Your task to perform on an android device: Search for macbook pro 15 inch on bestbuy, select the first entry, and add it to the cart. Image 0: 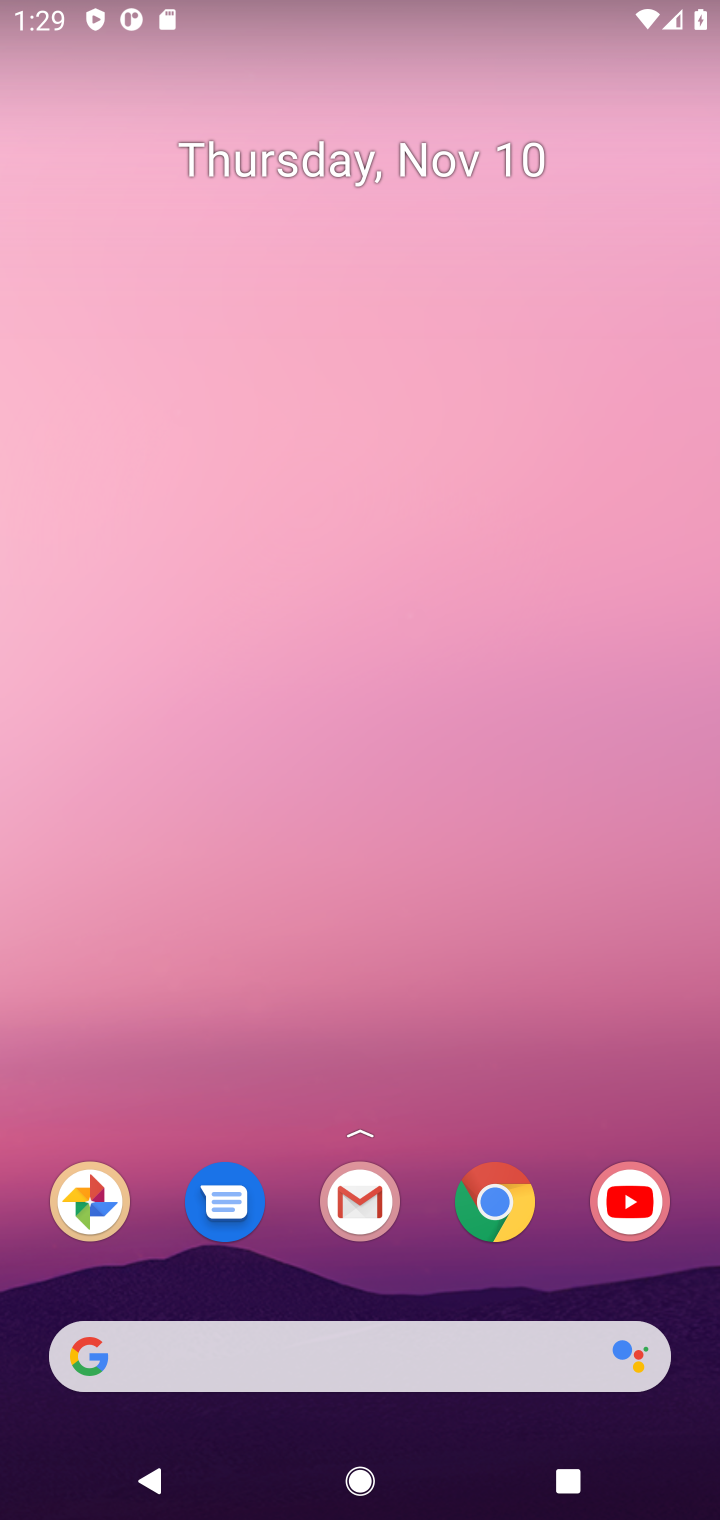
Step 0: click (482, 1191)
Your task to perform on an android device: Search for macbook pro 15 inch on bestbuy, select the first entry, and add it to the cart. Image 1: 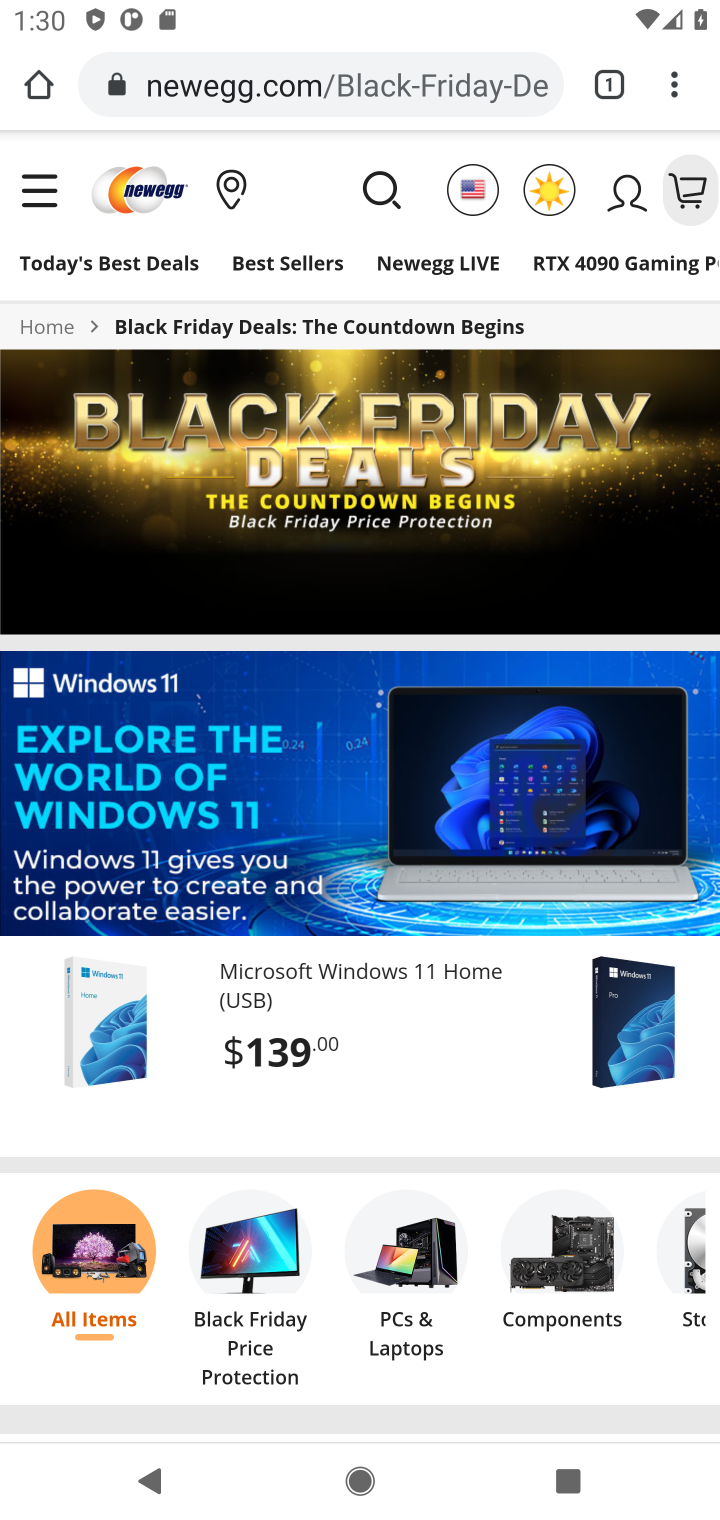
Step 1: click (358, 69)
Your task to perform on an android device: Search for macbook pro 15 inch on bestbuy, select the first entry, and add it to the cart. Image 2: 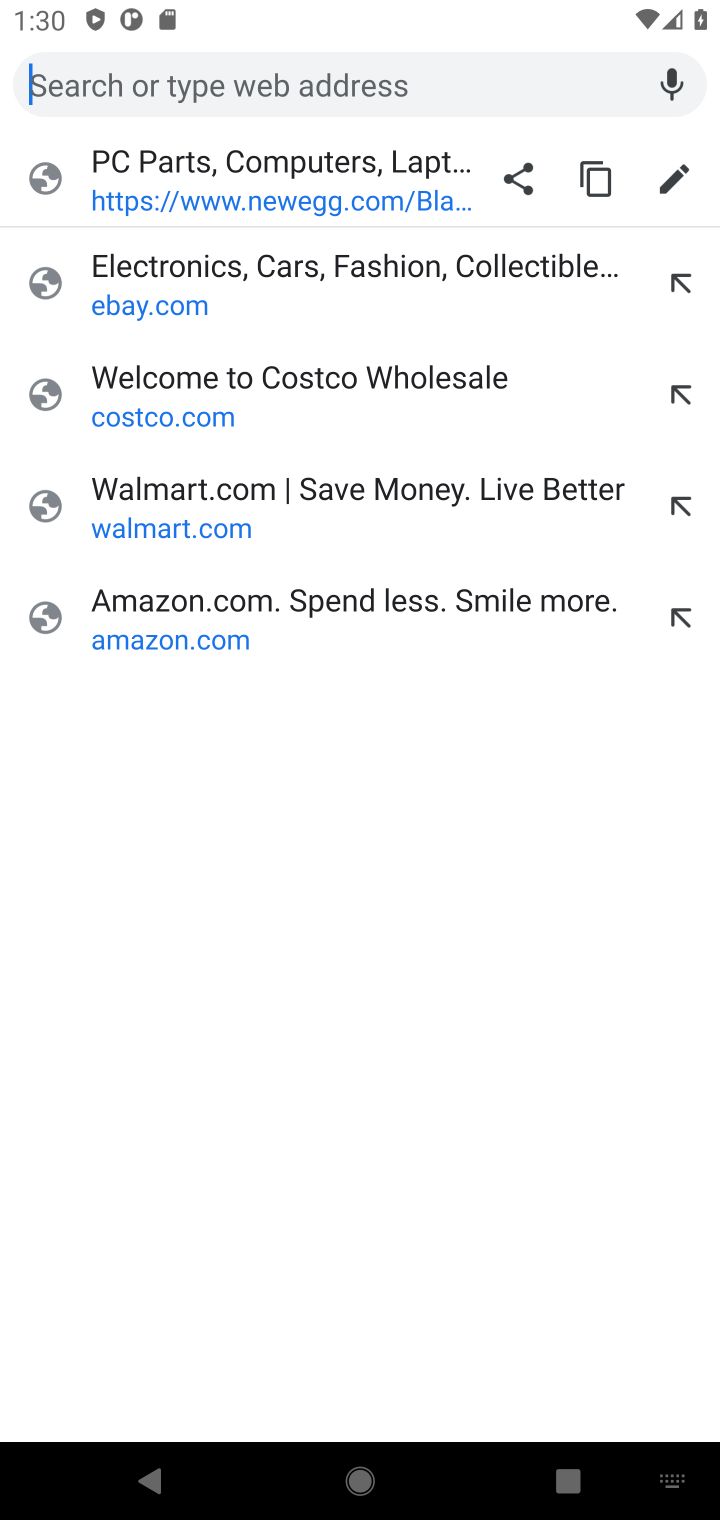
Step 2: type "bestbuy"
Your task to perform on an android device: Search for macbook pro 15 inch on bestbuy, select the first entry, and add it to the cart. Image 3: 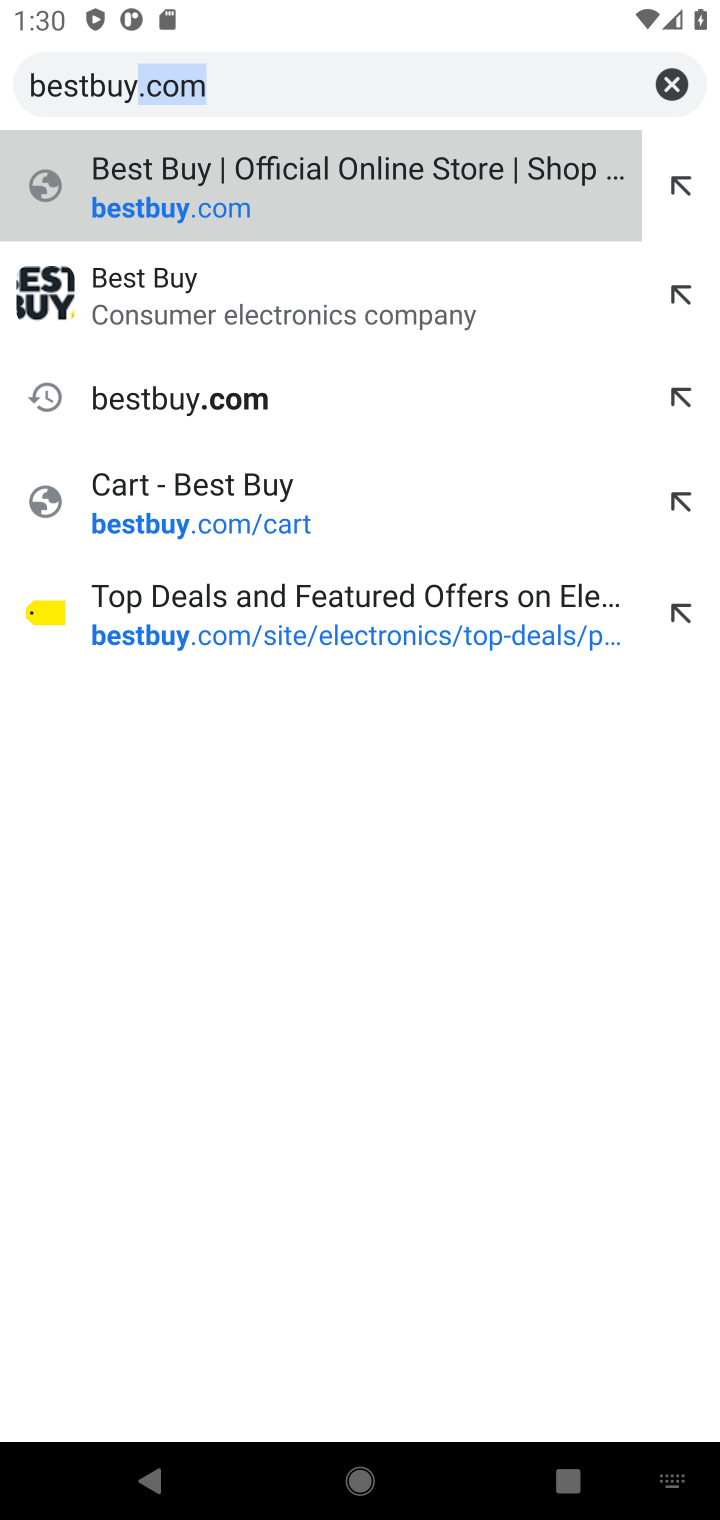
Step 3: press enter
Your task to perform on an android device: Search for macbook pro 15 inch on bestbuy, select the first entry, and add it to the cart. Image 4: 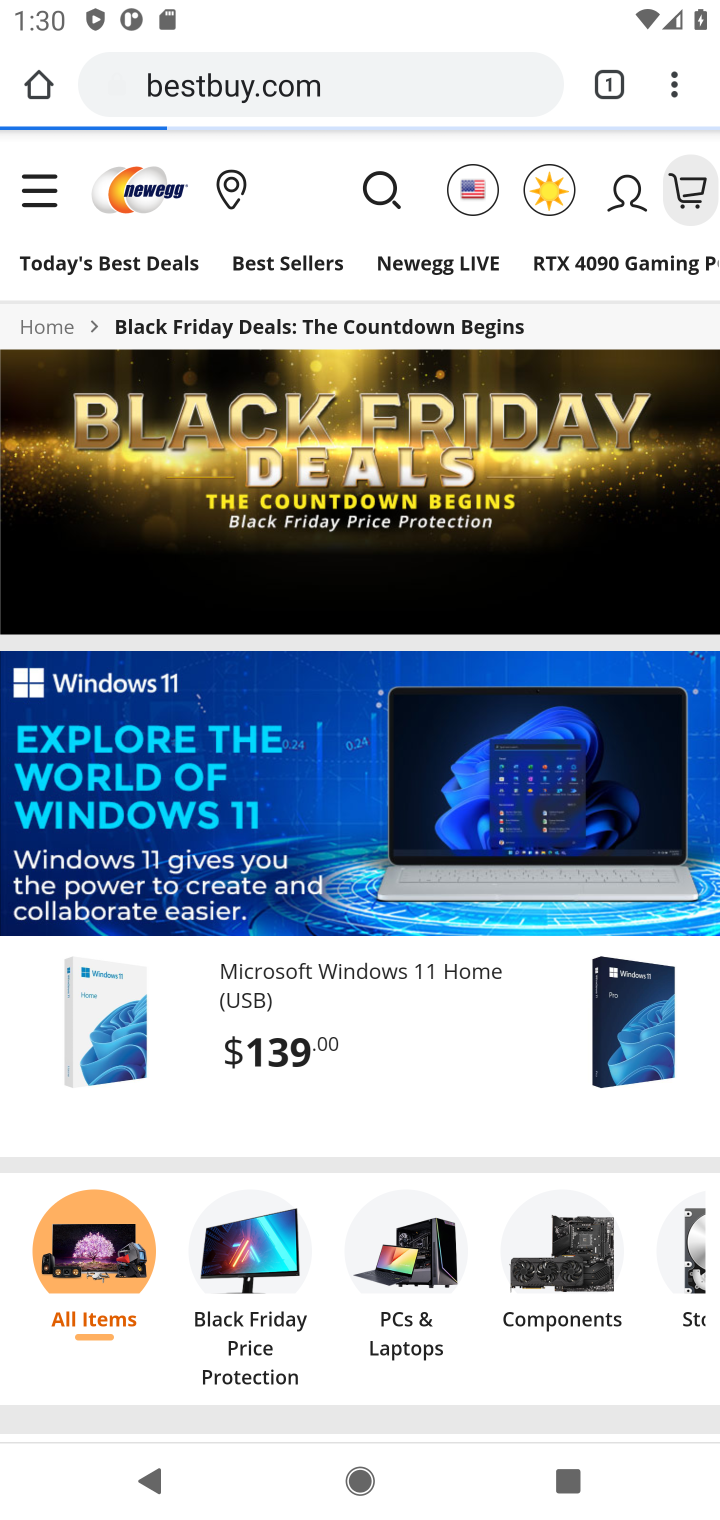
Step 4: click (489, 77)
Your task to perform on an android device: Search for macbook pro 15 inch on bestbuy, select the first entry, and add it to the cart. Image 5: 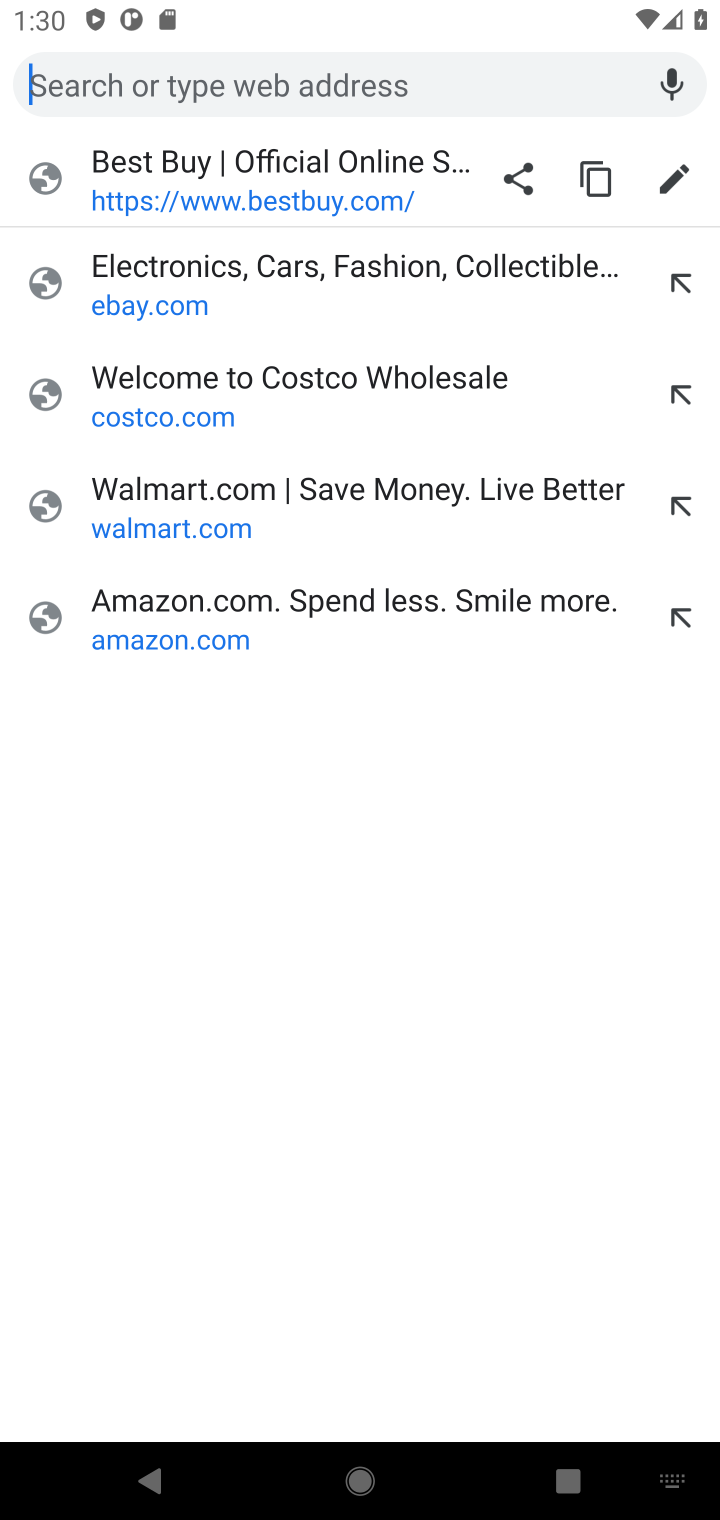
Step 5: press enter
Your task to perform on an android device: Search for macbook pro 15 inch on bestbuy, select the first entry, and add it to the cart. Image 6: 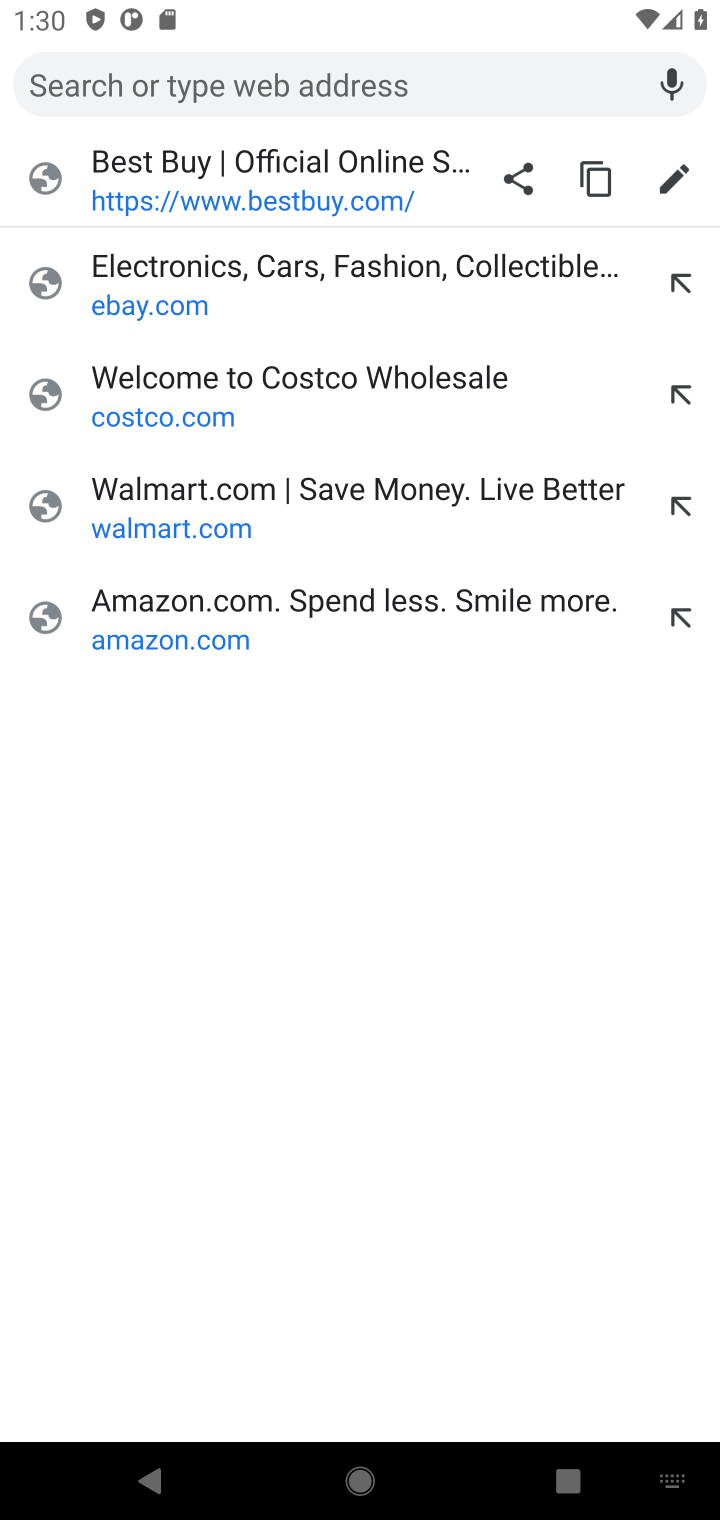
Step 6: type "bestbuy"
Your task to perform on an android device: Search for macbook pro 15 inch on bestbuy, select the first entry, and add it to the cart. Image 7: 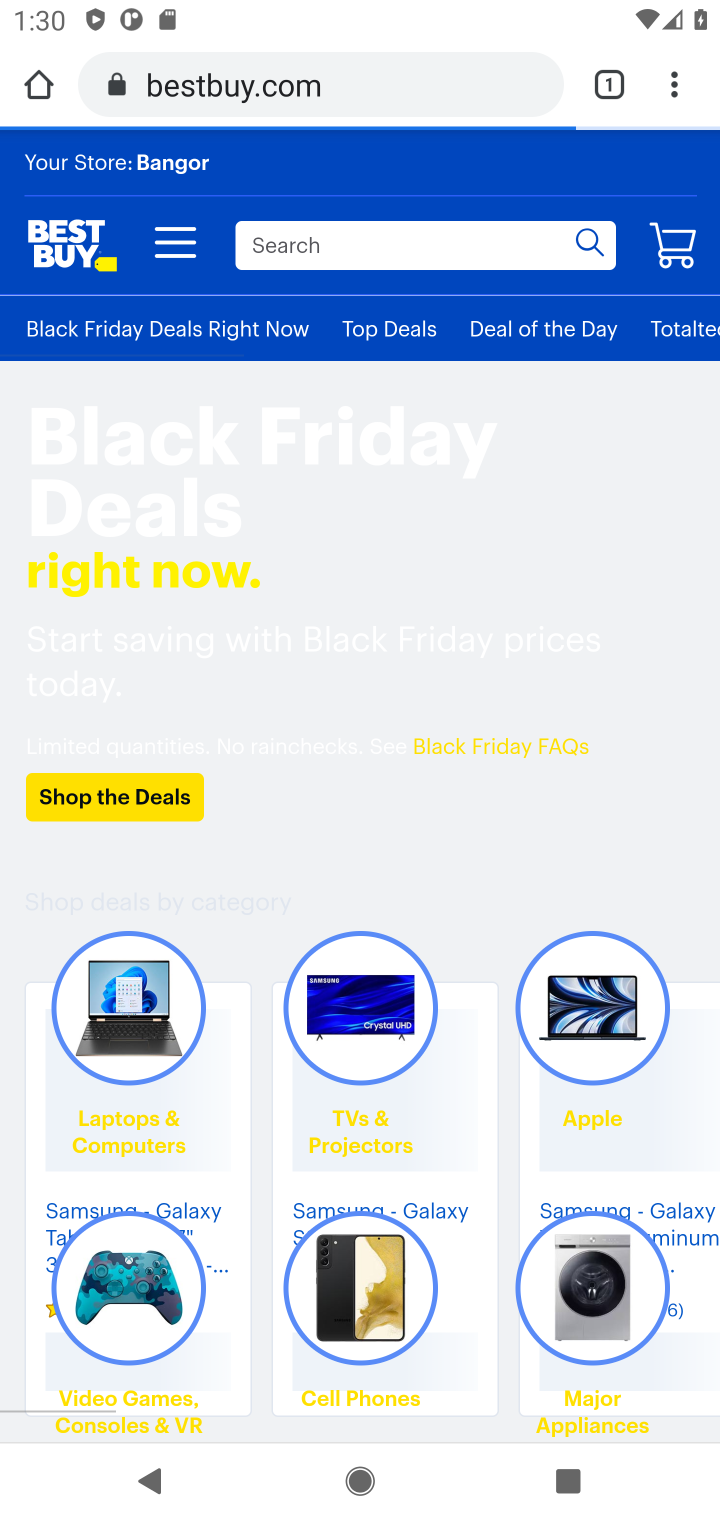
Step 7: click (380, 251)
Your task to perform on an android device: Search for macbook pro 15 inch on bestbuy, select the first entry, and add it to the cart. Image 8: 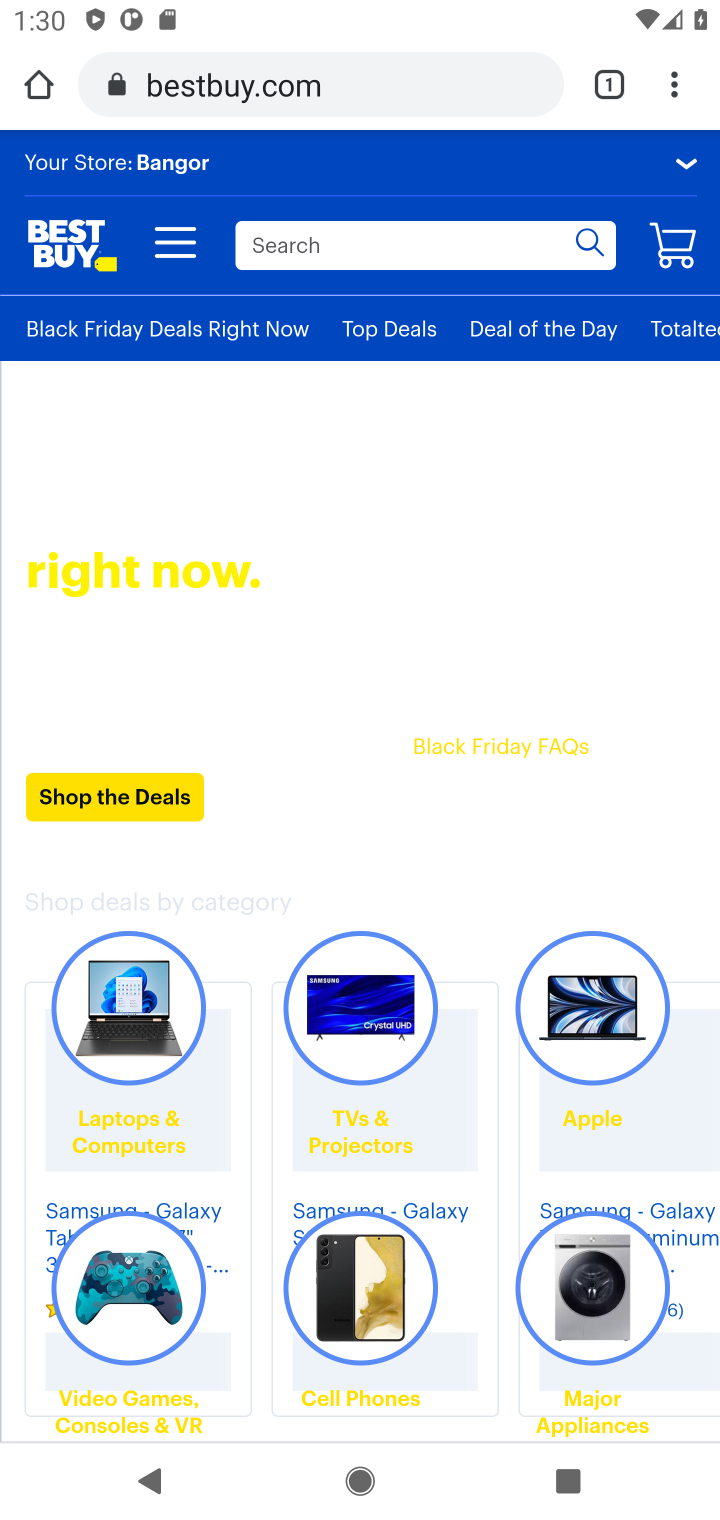
Step 8: click (398, 253)
Your task to perform on an android device: Search for macbook pro 15 inch on bestbuy, select the first entry, and add it to the cart. Image 9: 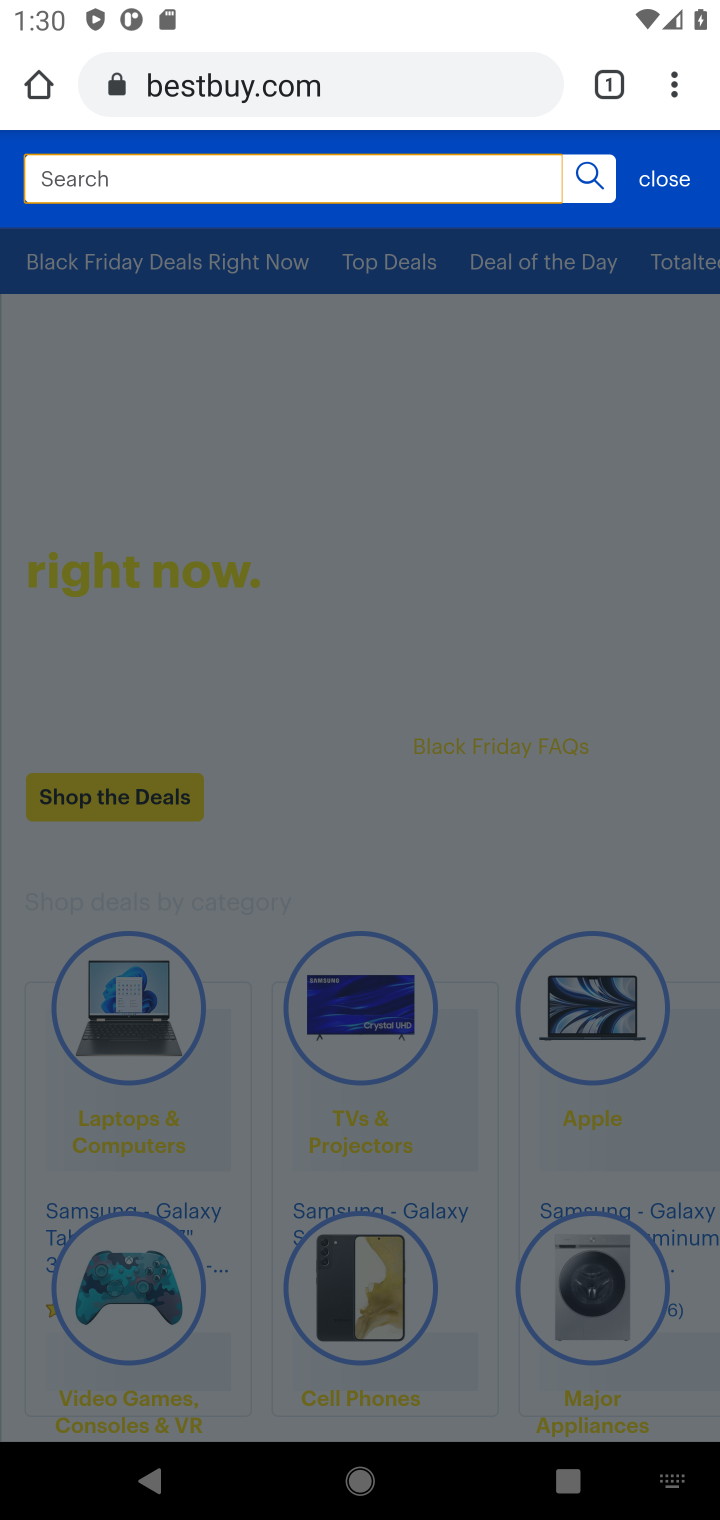
Step 9: type "macbook pro 15 inch"
Your task to perform on an android device: Search for macbook pro 15 inch on bestbuy, select the first entry, and add it to the cart. Image 10: 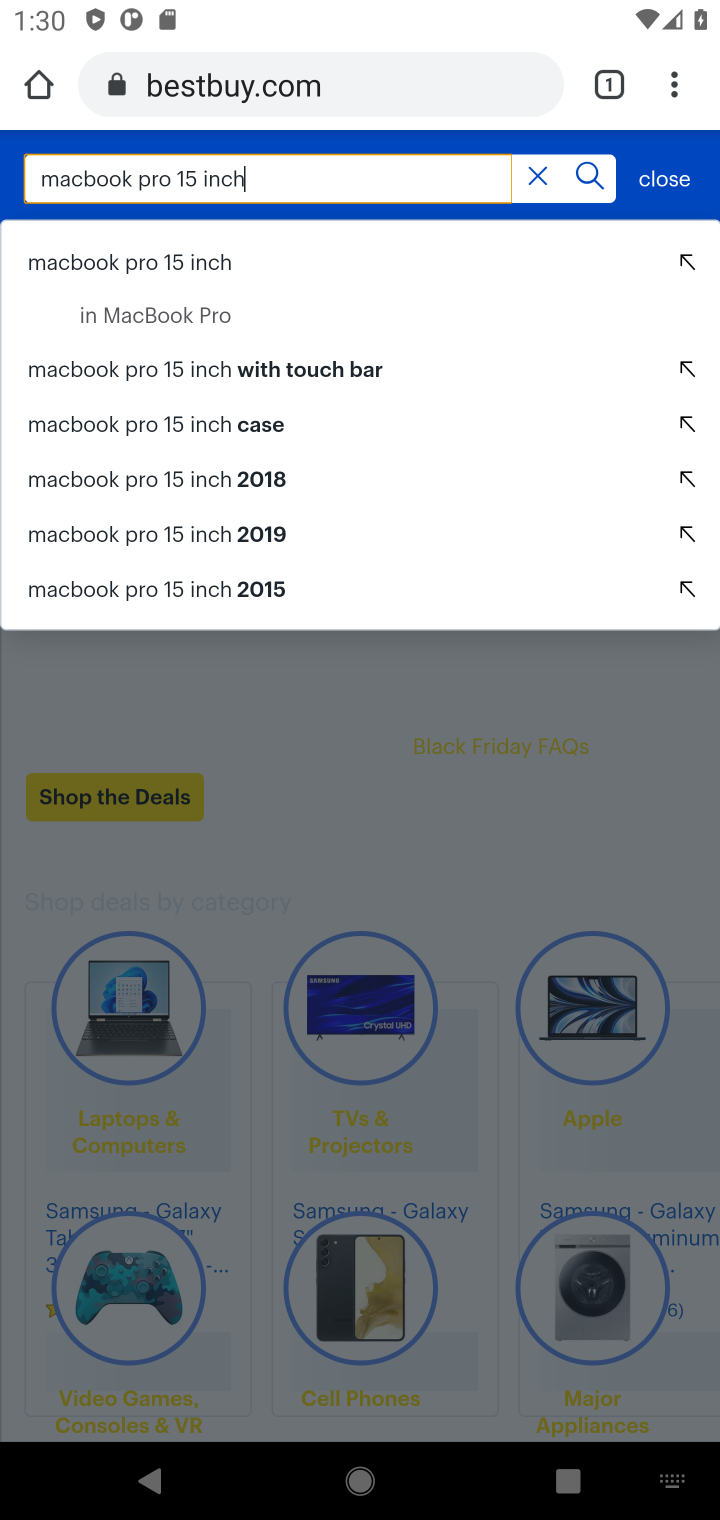
Step 10: click (203, 252)
Your task to perform on an android device: Search for macbook pro 15 inch on bestbuy, select the first entry, and add it to the cart. Image 11: 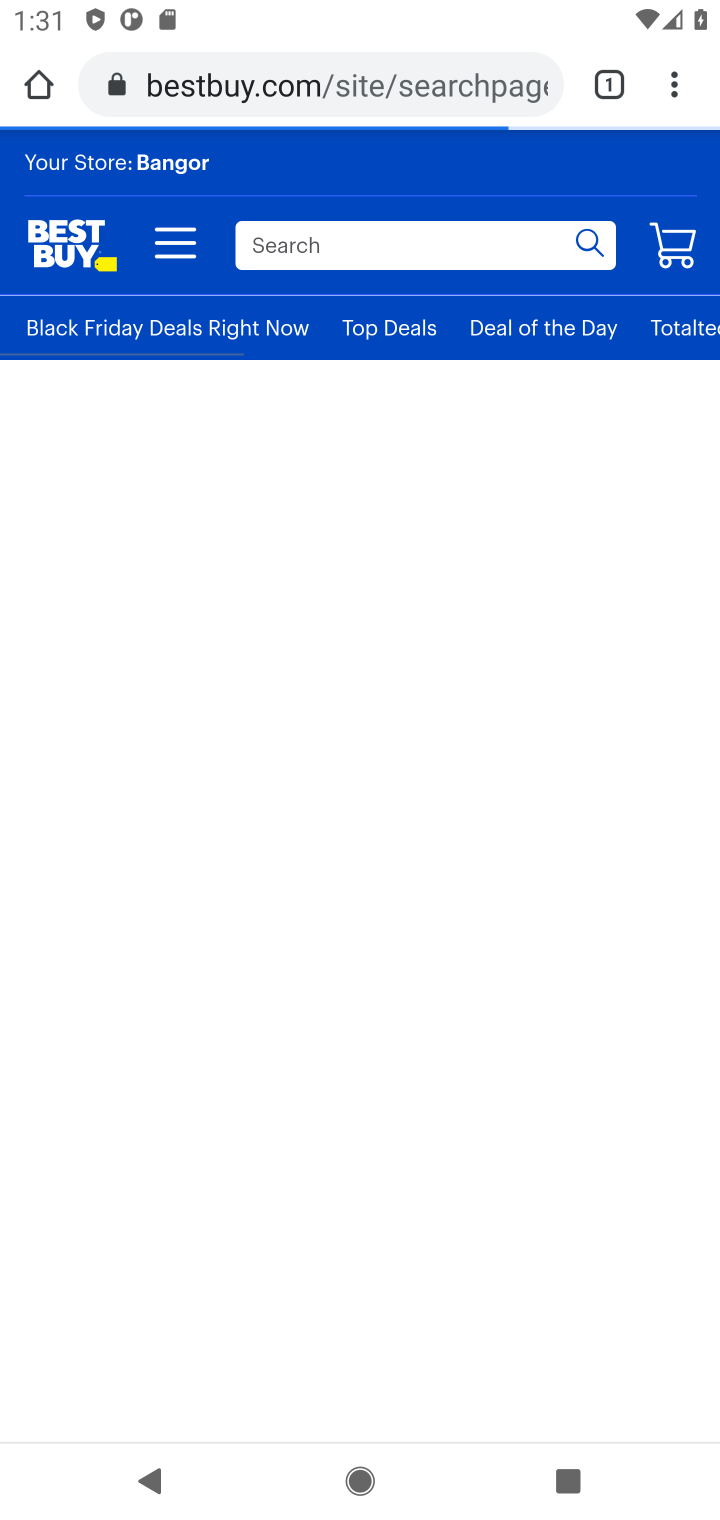
Step 11: click (478, 397)
Your task to perform on an android device: Search for macbook pro 15 inch on bestbuy, select the first entry, and add it to the cart. Image 12: 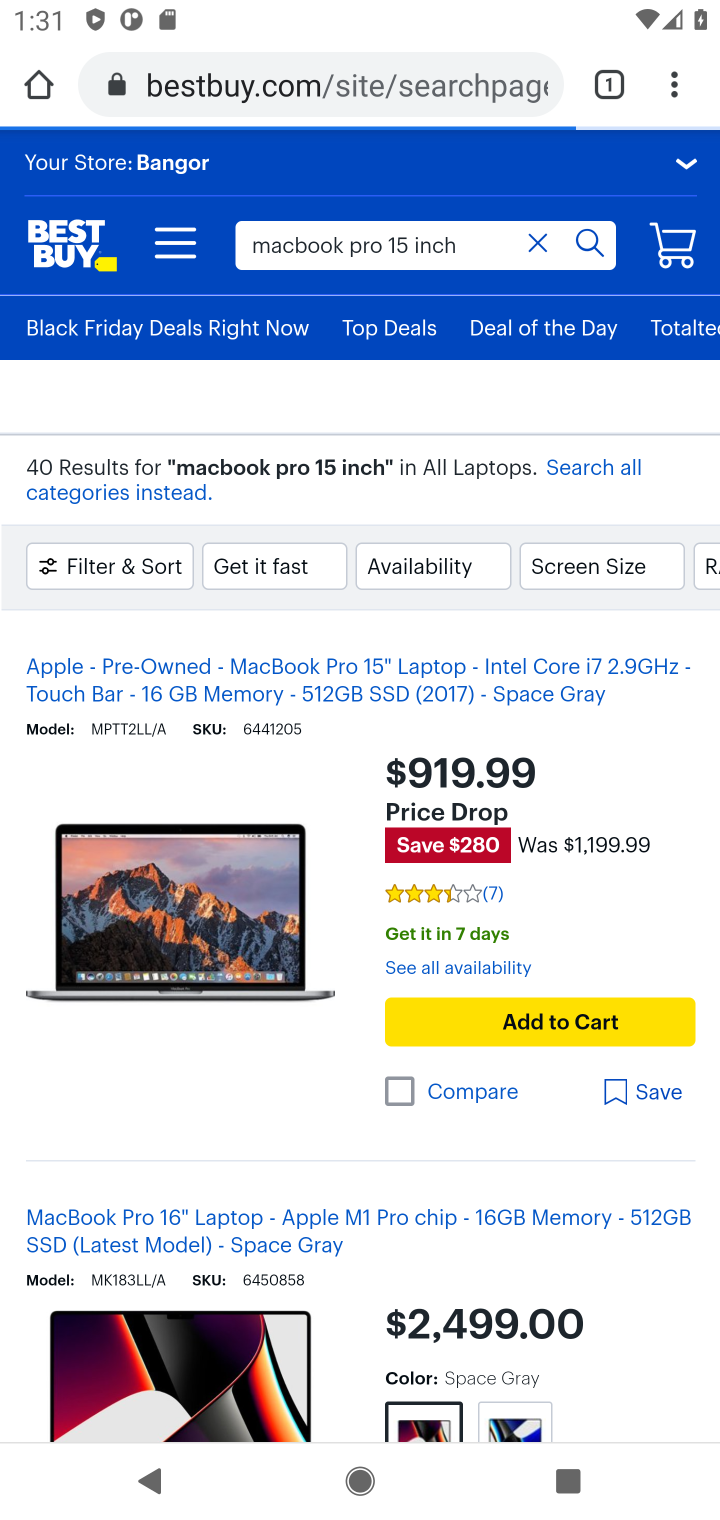
Step 12: click (341, 671)
Your task to perform on an android device: Search for macbook pro 15 inch on bestbuy, select the first entry, and add it to the cart. Image 13: 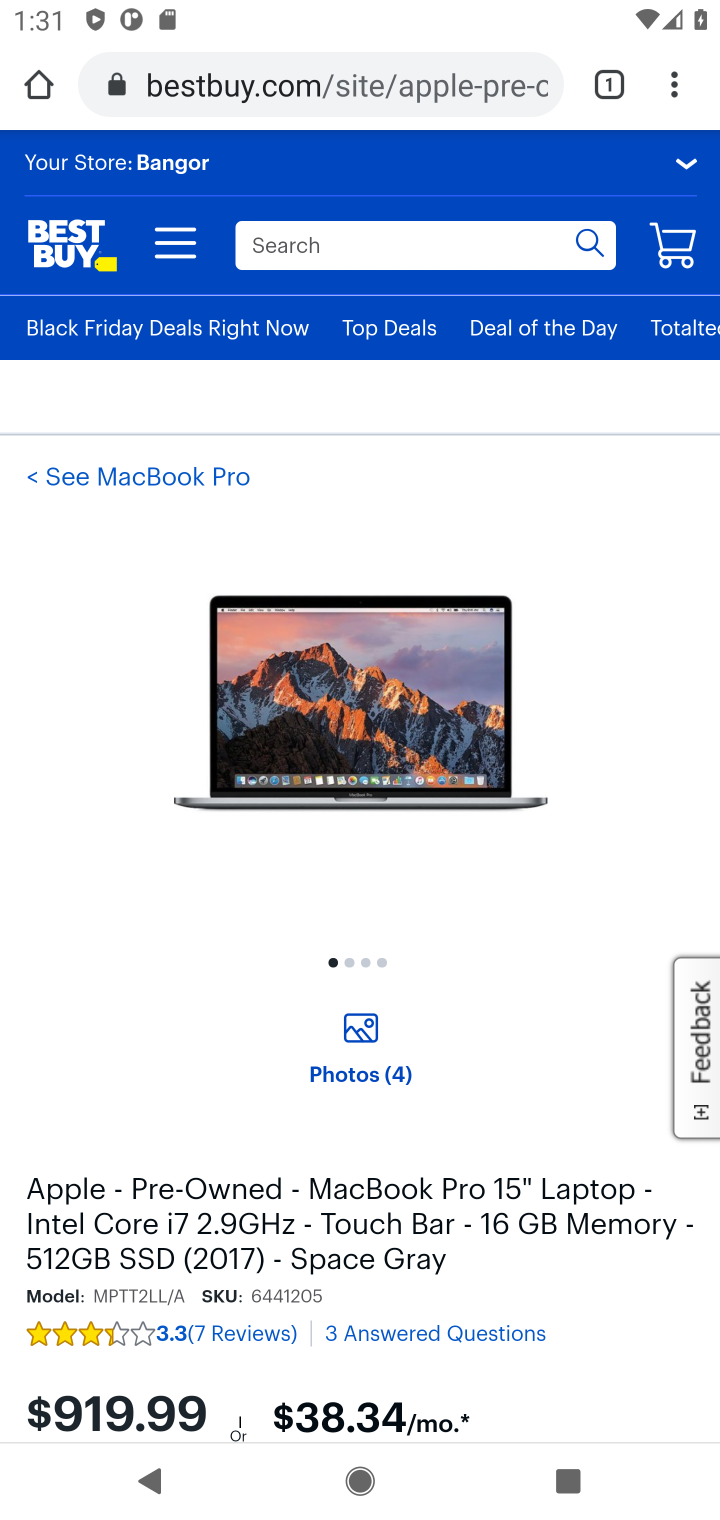
Step 13: drag from (502, 1215) to (400, 715)
Your task to perform on an android device: Search for macbook pro 15 inch on bestbuy, select the first entry, and add it to the cart. Image 14: 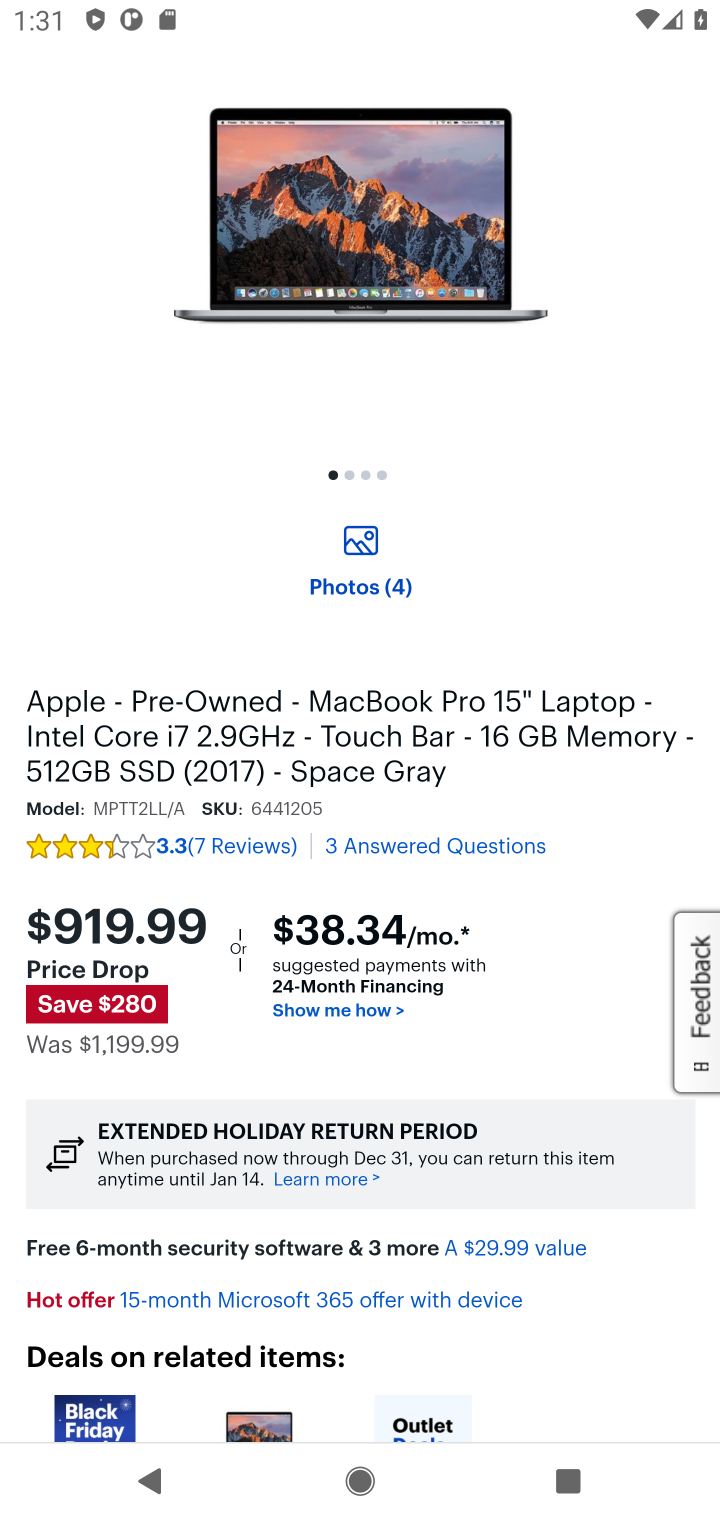
Step 14: drag from (559, 1173) to (546, 613)
Your task to perform on an android device: Search for macbook pro 15 inch on bestbuy, select the first entry, and add it to the cart. Image 15: 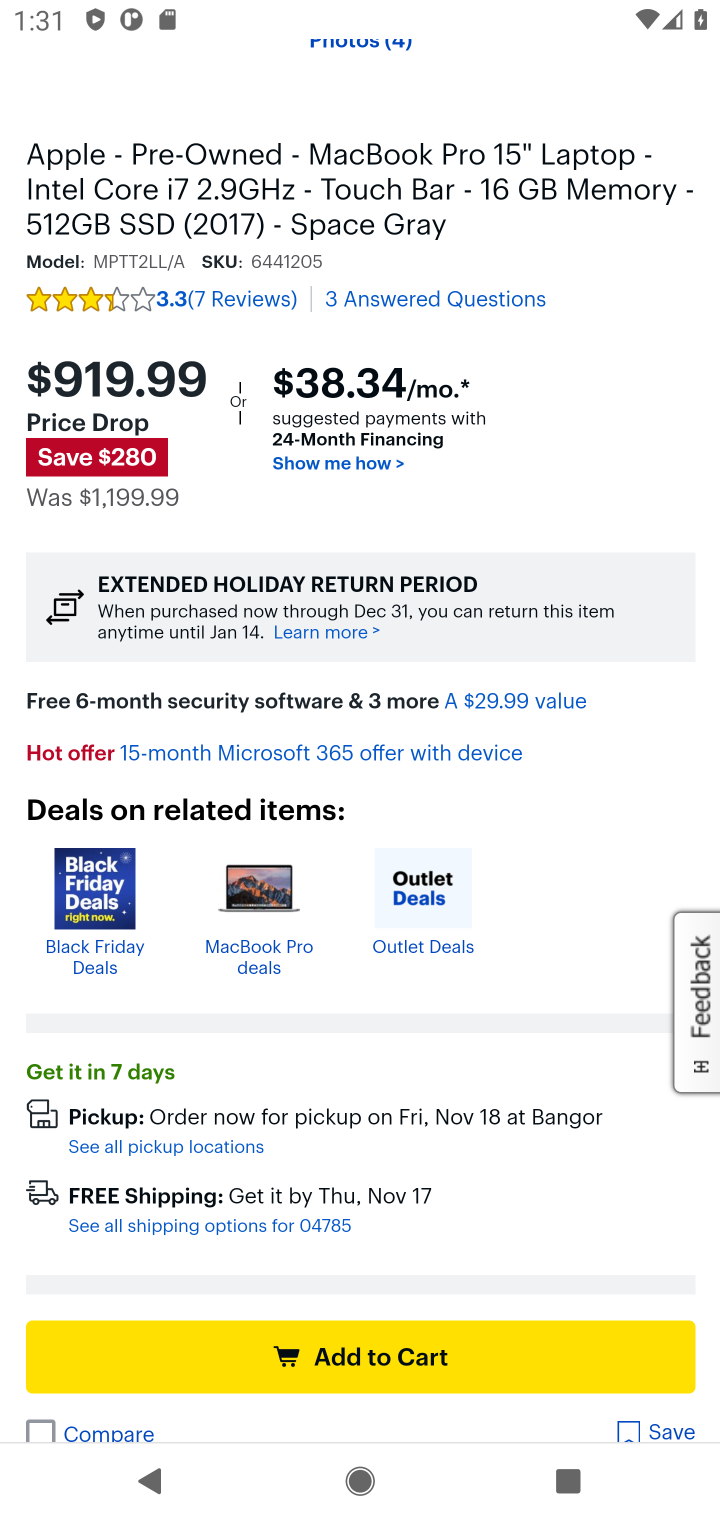
Step 15: drag from (520, 974) to (507, 722)
Your task to perform on an android device: Search for macbook pro 15 inch on bestbuy, select the first entry, and add it to the cart. Image 16: 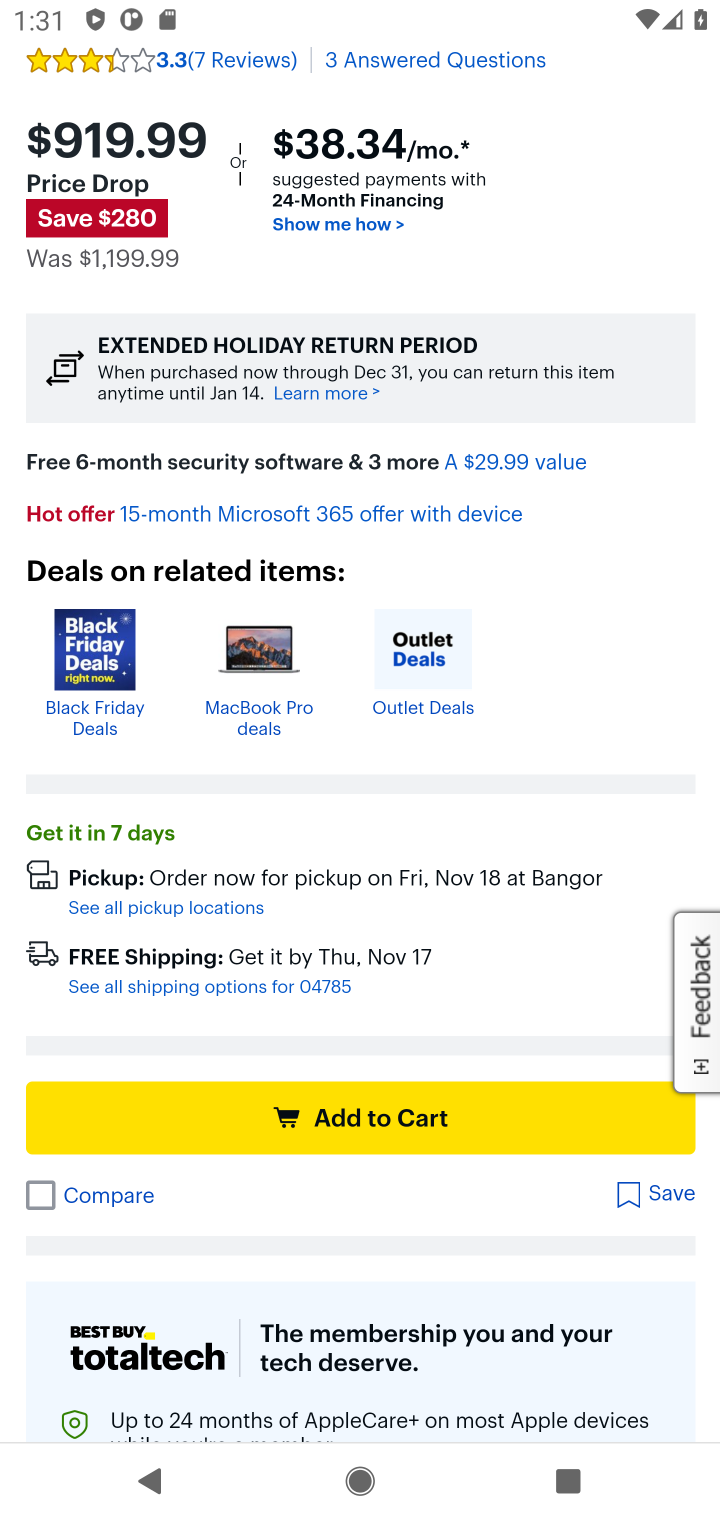
Step 16: click (454, 1105)
Your task to perform on an android device: Search for macbook pro 15 inch on bestbuy, select the first entry, and add it to the cart. Image 17: 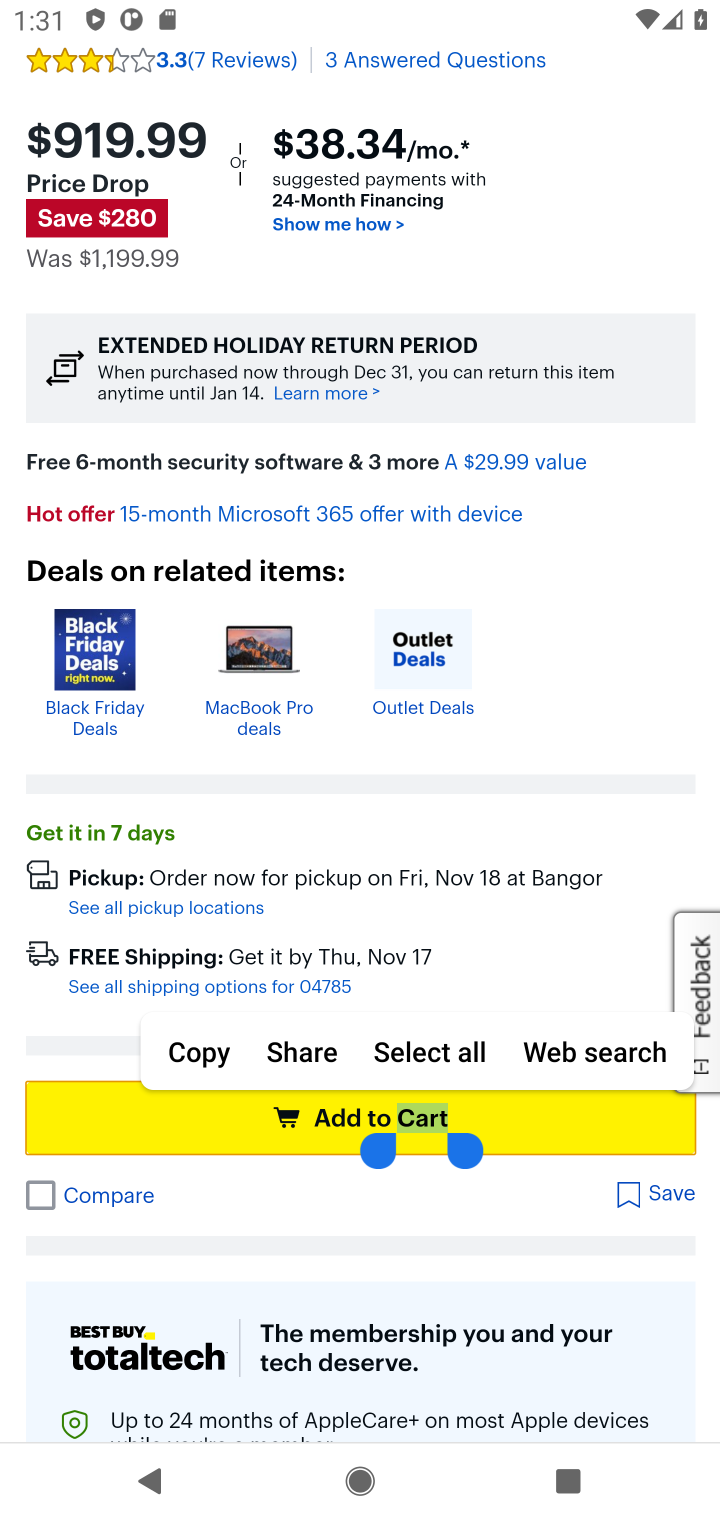
Step 17: click (352, 1126)
Your task to perform on an android device: Search for macbook pro 15 inch on bestbuy, select the first entry, and add it to the cart. Image 18: 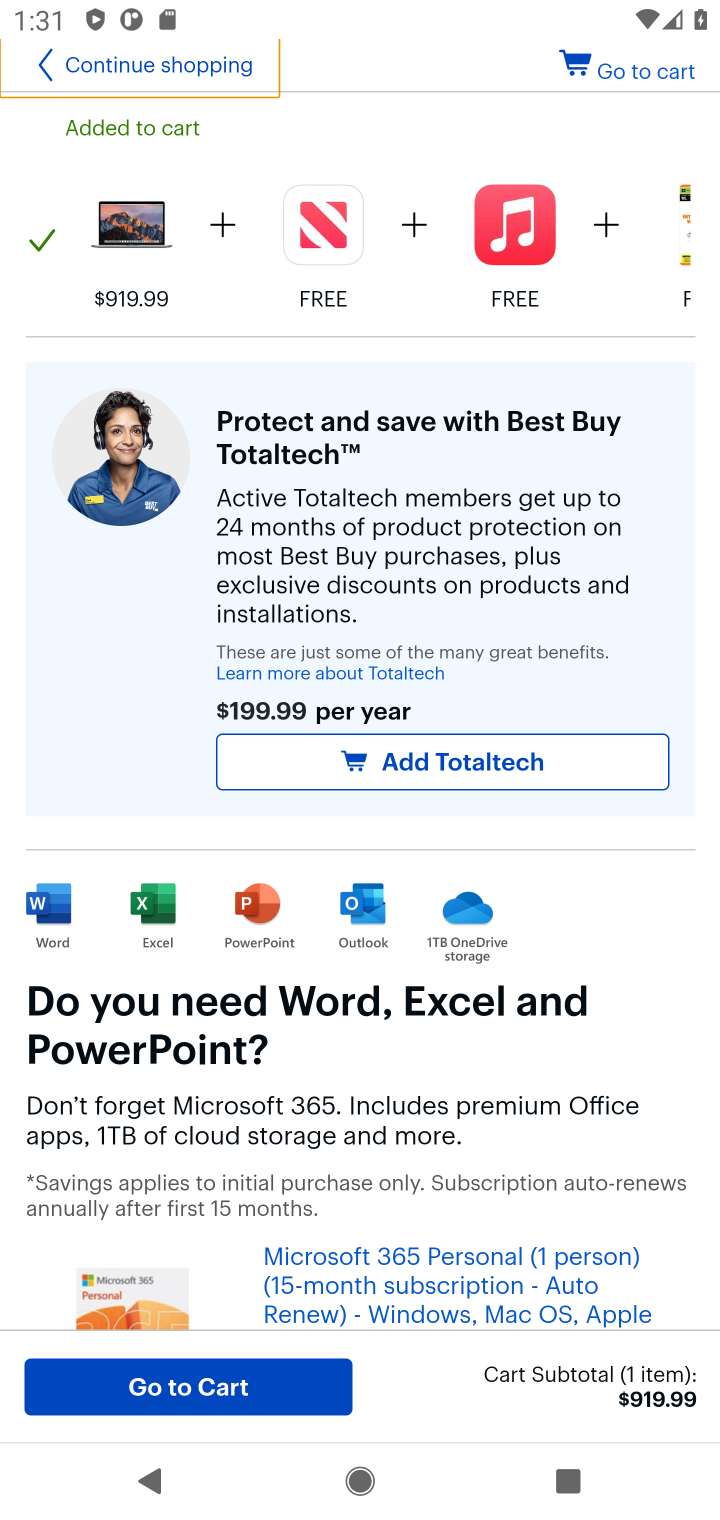
Step 18: task complete